Your task to perform on an android device: turn off javascript in the chrome app Image 0: 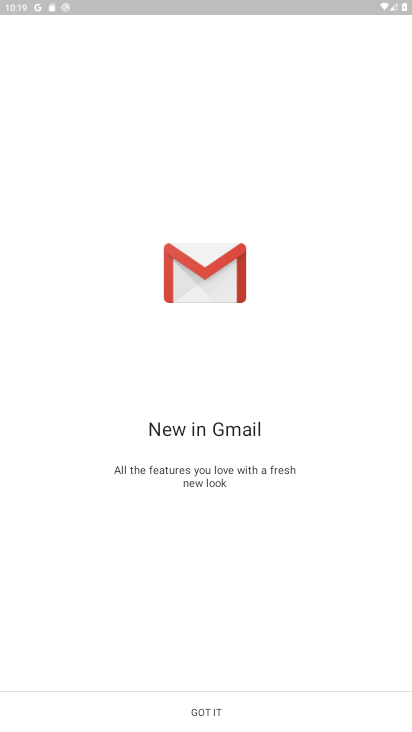
Step 0: press home button
Your task to perform on an android device: turn off javascript in the chrome app Image 1: 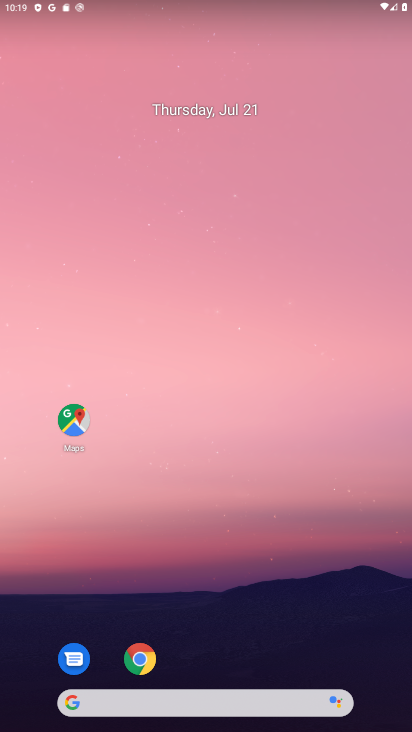
Step 1: click (146, 658)
Your task to perform on an android device: turn off javascript in the chrome app Image 2: 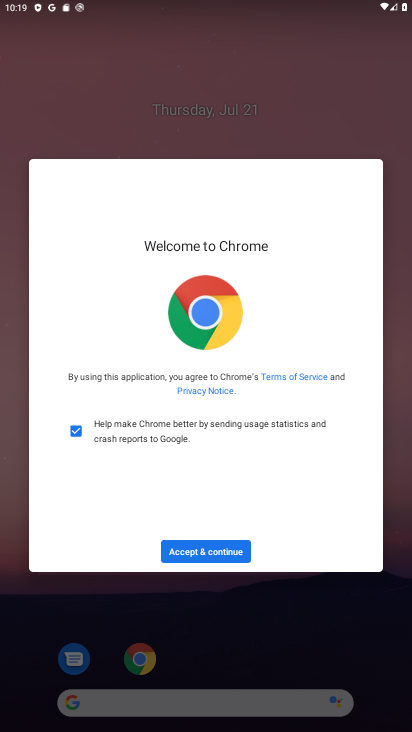
Step 2: click (216, 549)
Your task to perform on an android device: turn off javascript in the chrome app Image 3: 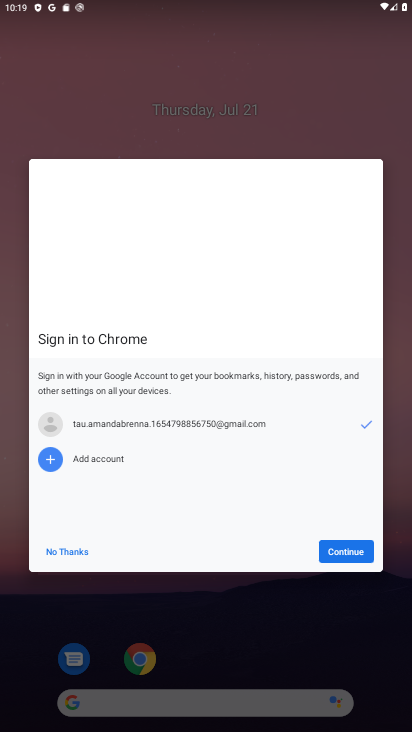
Step 3: click (344, 546)
Your task to perform on an android device: turn off javascript in the chrome app Image 4: 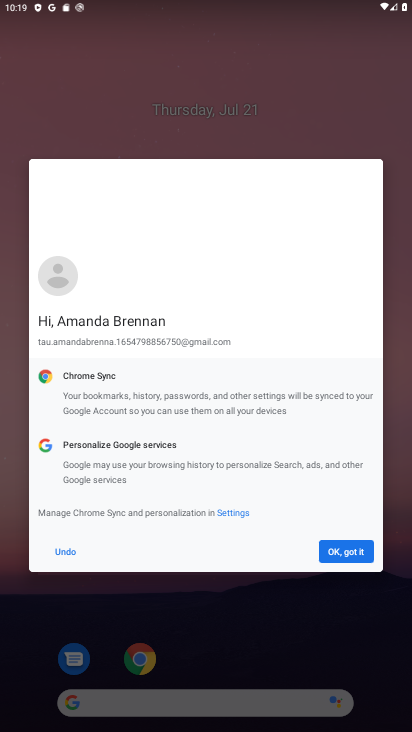
Step 4: click (344, 547)
Your task to perform on an android device: turn off javascript in the chrome app Image 5: 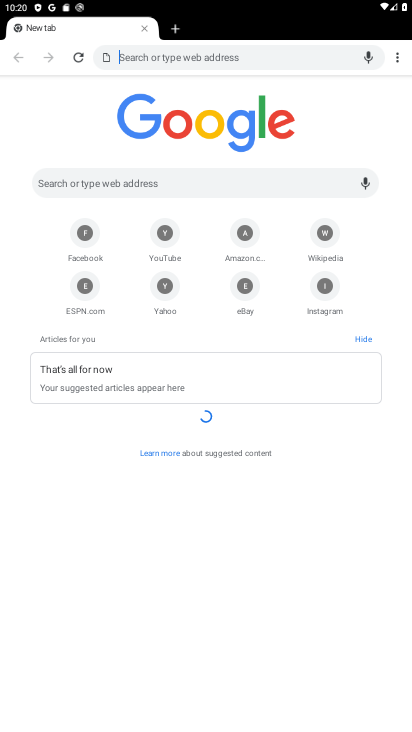
Step 5: click (392, 63)
Your task to perform on an android device: turn off javascript in the chrome app Image 6: 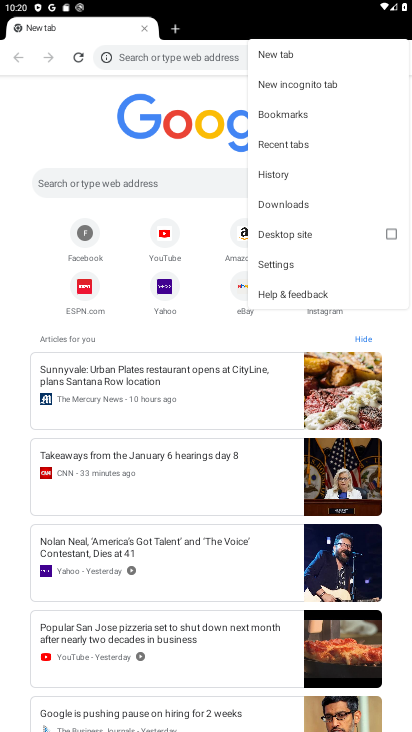
Step 6: click (299, 269)
Your task to perform on an android device: turn off javascript in the chrome app Image 7: 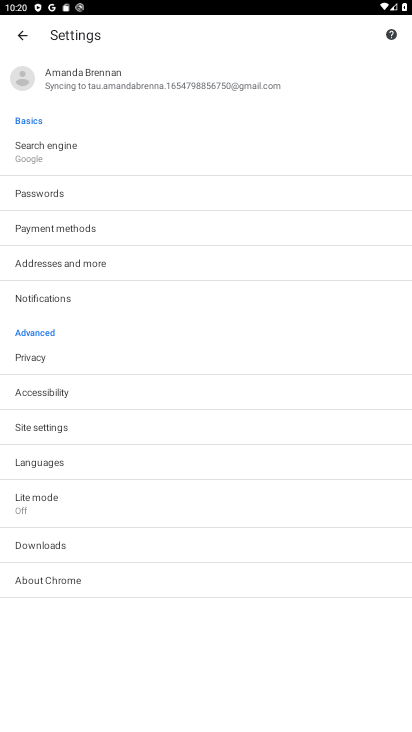
Step 7: click (74, 430)
Your task to perform on an android device: turn off javascript in the chrome app Image 8: 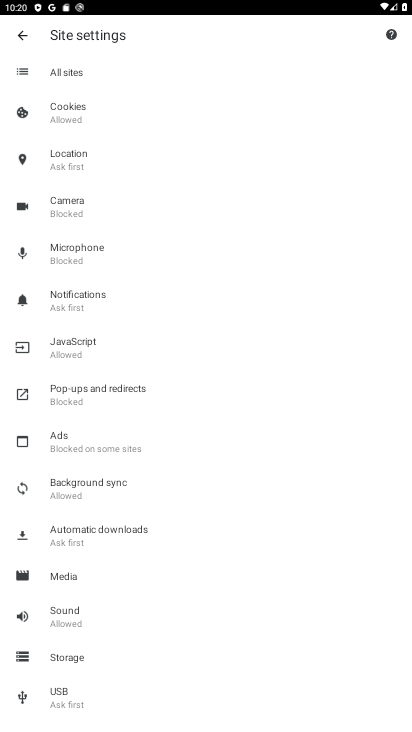
Step 8: click (111, 344)
Your task to perform on an android device: turn off javascript in the chrome app Image 9: 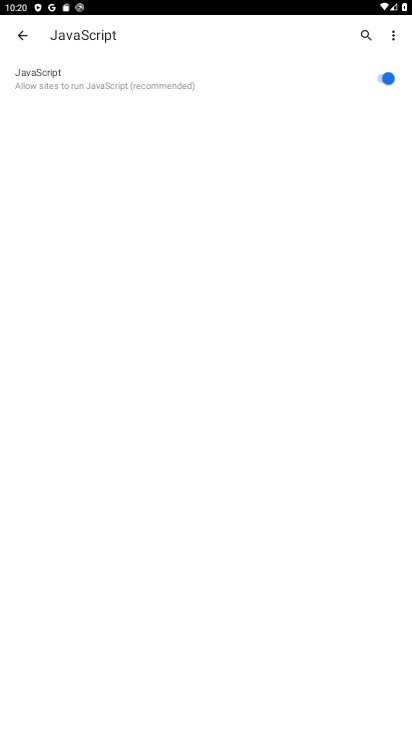
Step 9: click (387, 72)
Your task to perform on an android device: turn off javascript in the chrome app Image 10: 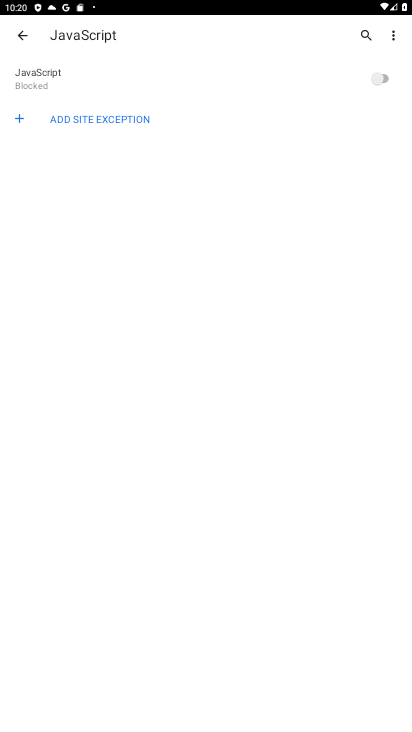
Step 10: task complete